Your task to perform on an android device: turn off wifi Image 0: 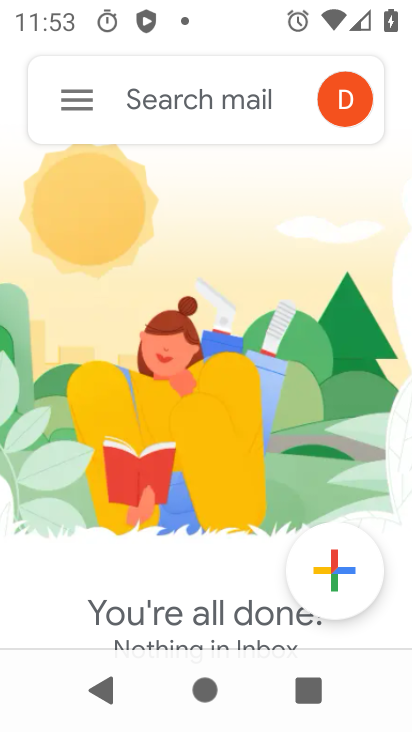
Step 0: press home button
Your task to perform on an android device: turn off wifi Image 1: 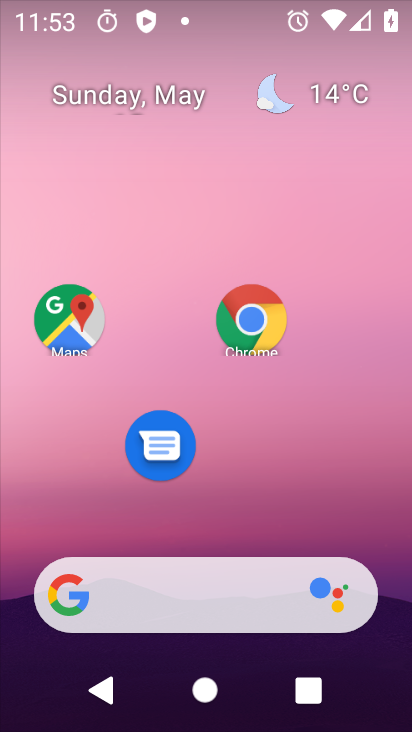
Step 1: drag from (187, 595) to (244, 147)
Your task to perform on an android device: turn off wifi Image 2: 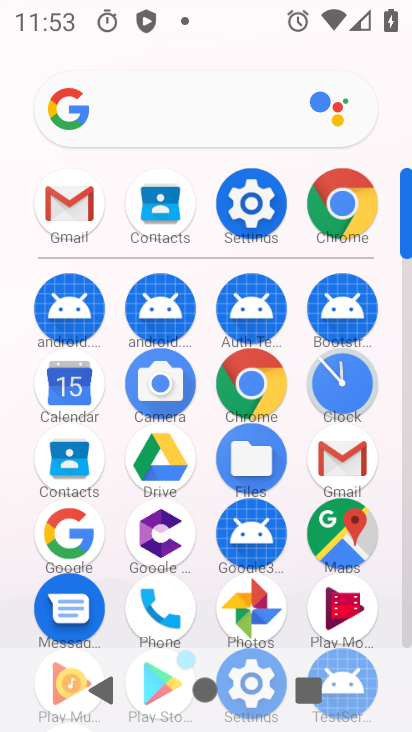
Step 2: click (243, 210)
Your task to perform on an android device: turn off wifi Image 3: 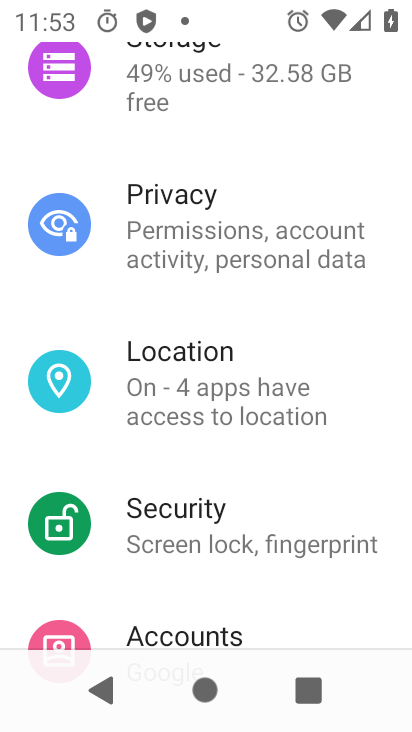
Step 3: drag from (302, 107) to (261, 634)
Your task to perform on an android device: turn off wifi Image 4: 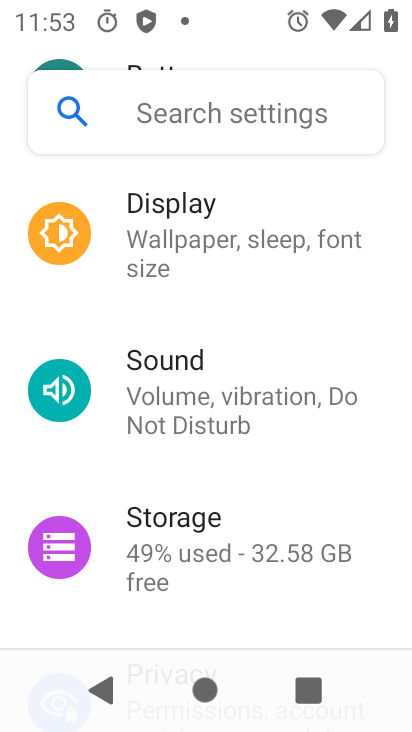
Step 4: drag from (294, 195) to (310, 645)
Your task to perform on an android device: turn off wifi Image 5: 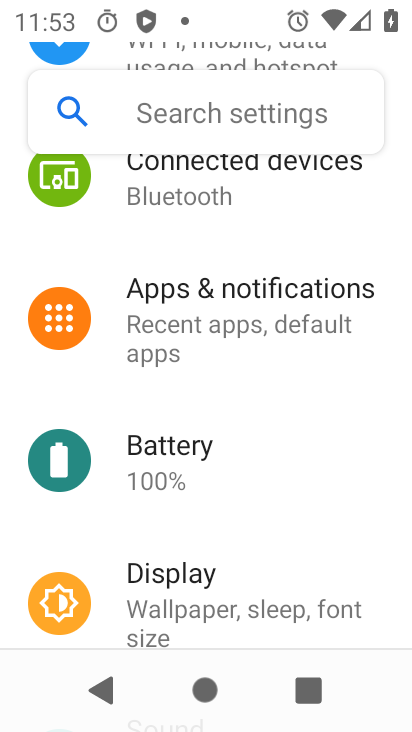
Step 5: drag from (271, 205) to (291, 624)
Your task to perform on an android device: turn off wifi Image 6: 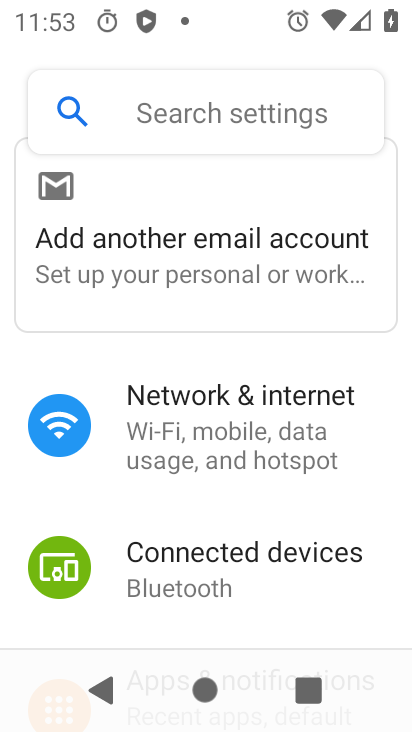
Step 6: click (276, 432)
Your task to perform on an android device: turn off wifi Image 7: 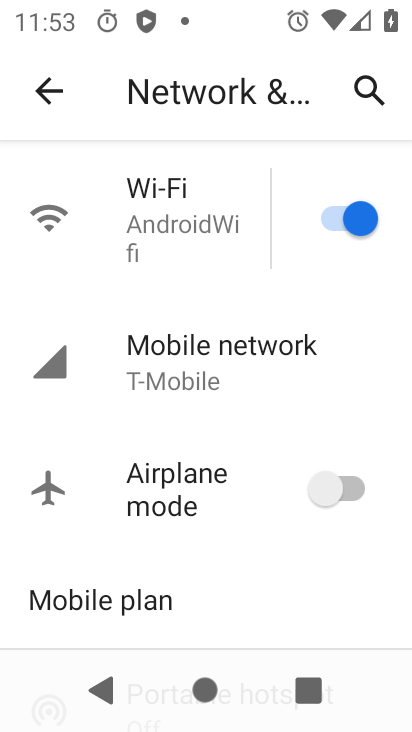
Step 7: click (330, 215)
Your task to perform on an android device: turn off wifi Image 8: 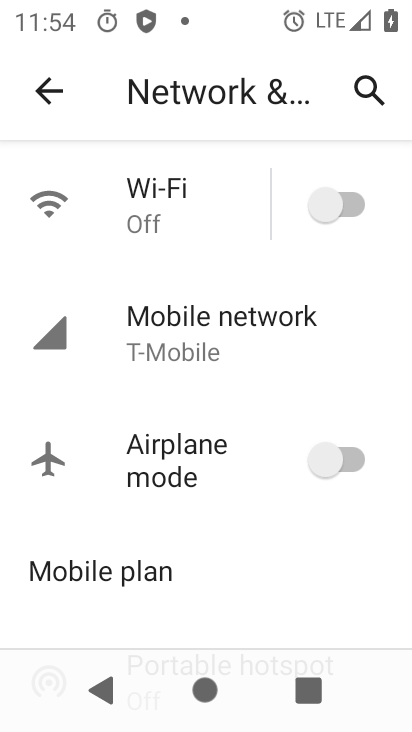
Step 8: task complete